Your task to perform on an android device: turn on priority inbox in the gmail app Image 0: 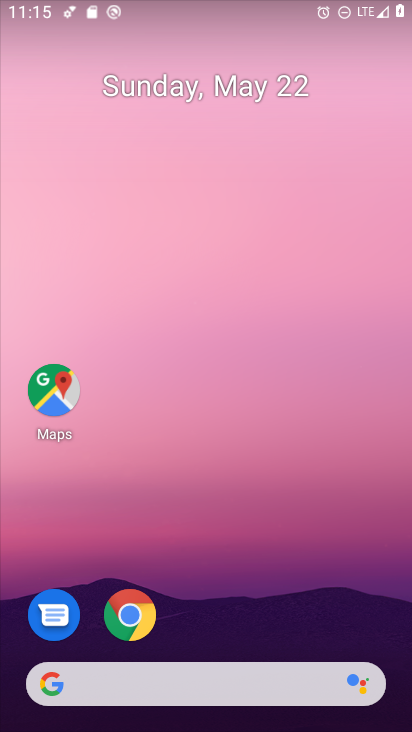
Step 0: drag from (284, 543) to (259, 104)
Your task to perform on an android device: turn on priority inbox in the gmail app Image 1: 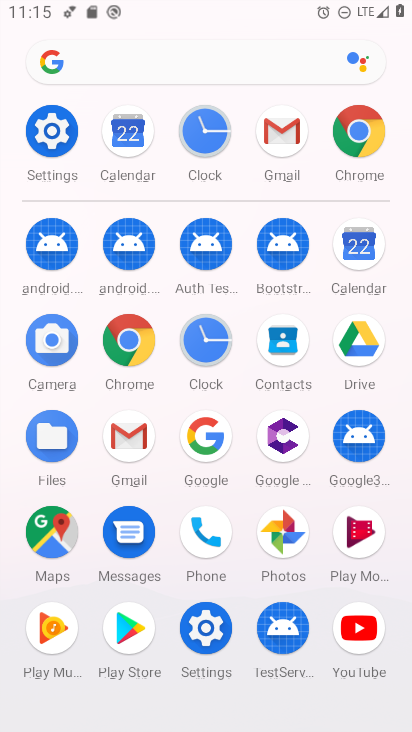
Step 1: click (289, 139)
Your task to perform on an android device: turn on priority inbox in the gmail app Image 2: 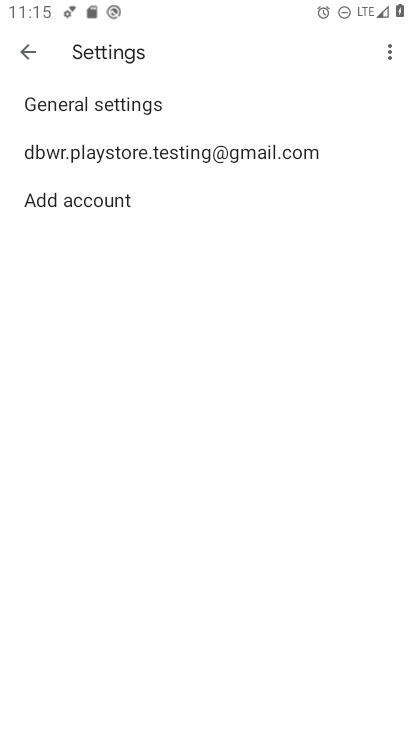
Step 2: click (100, 157)
Your task to perform on an android device: turn on priority inbox in the gmail app Image 3: 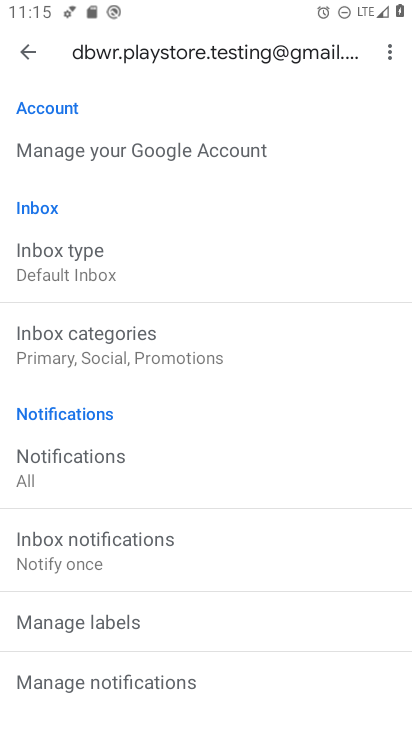
Step 3: click (89, 267)
Your task to perform on an android device: turn on priority inbox in the gmail app Image 4: 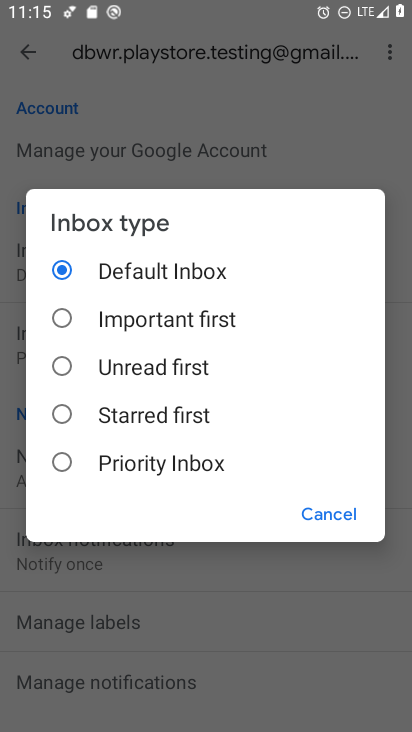
Step 4: task complete